Your task to perform on an android device: open app "Google Pay: Save, Pay, Manage" Image 0: 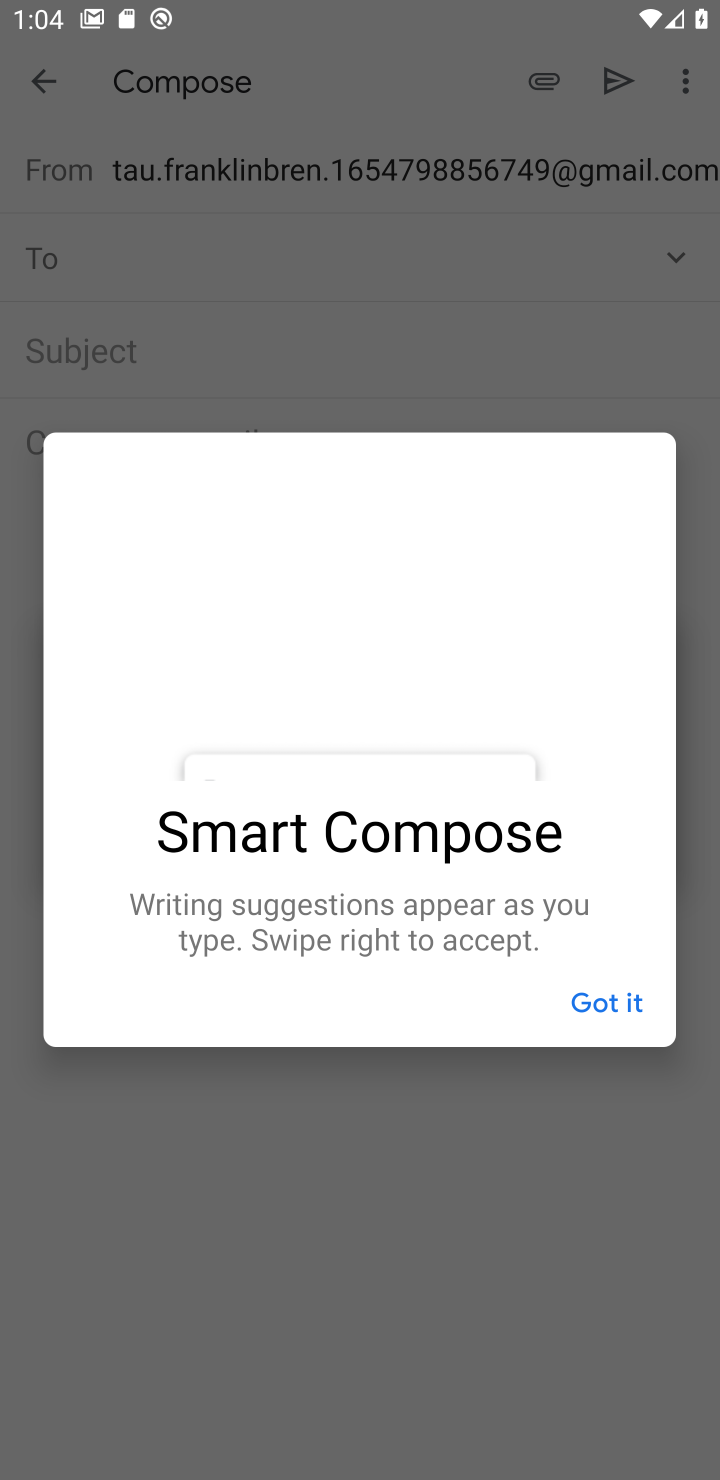
Step 0: press home button
Your task to perform on an android device: open app "Google Pay: Save, Pay, Manage" Image 1: 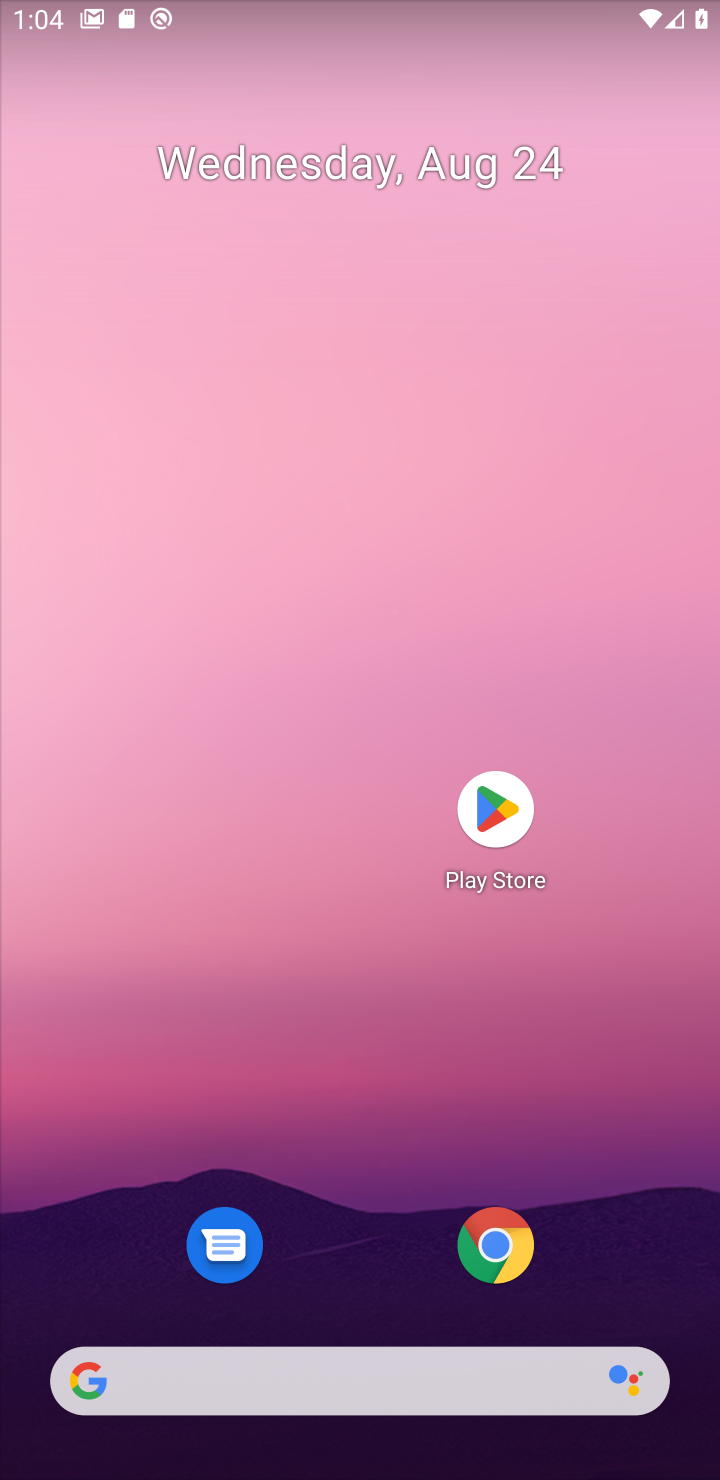
Step 1: click (489, 808)
Your task to perform on an android device: open app "Google Pay: Save, Pay, Manage" Image 2: 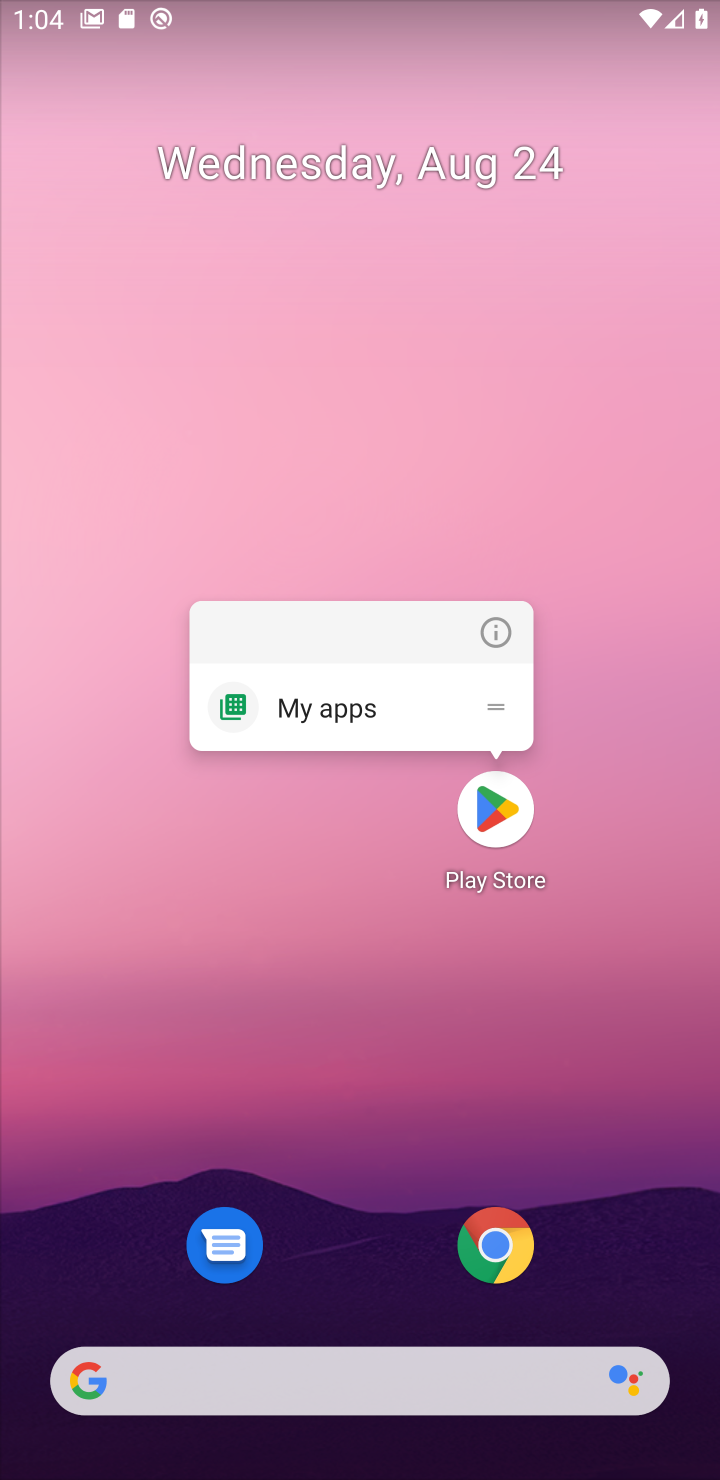
Step 2: click (489, 810)
Your task to perform on an android device: open app "Google Pay: Save, Pay, Manage" Image 3: 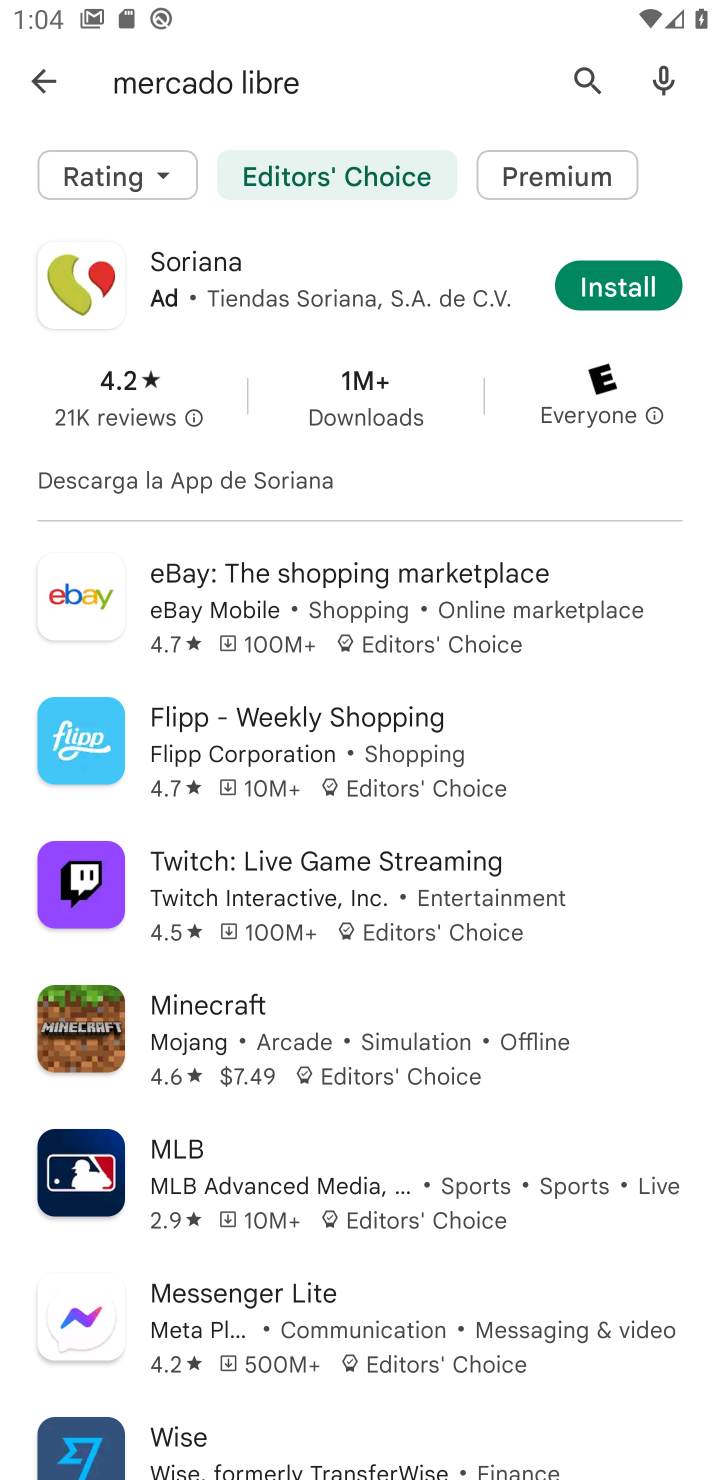
Step 3: click (585, 73)
Your task to perform on an android device: open app "Google Pay: Save, Pay, Manage" Image 4: 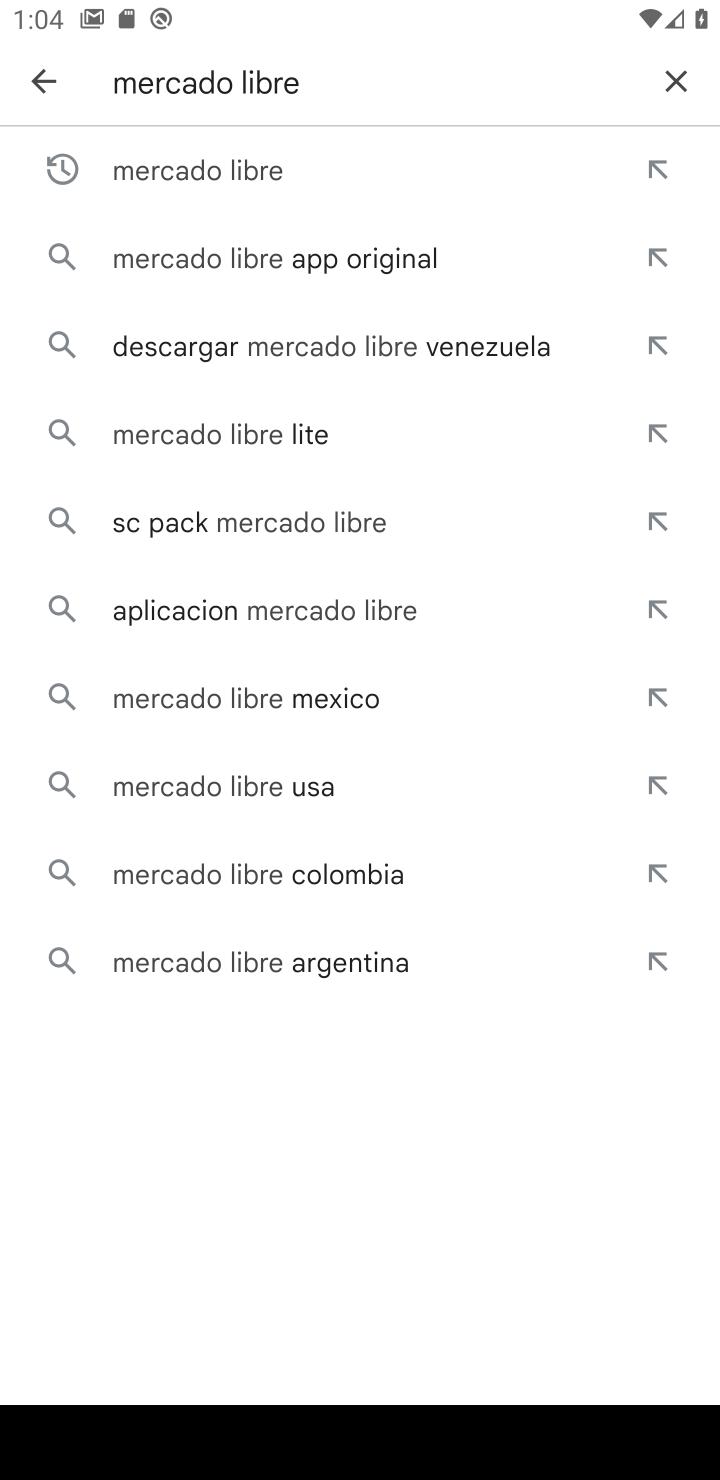
Step 4: click (663, 69)
Your task to perform on an android device: open app "Google Pay: Save, Pay, Manage" Image 5: 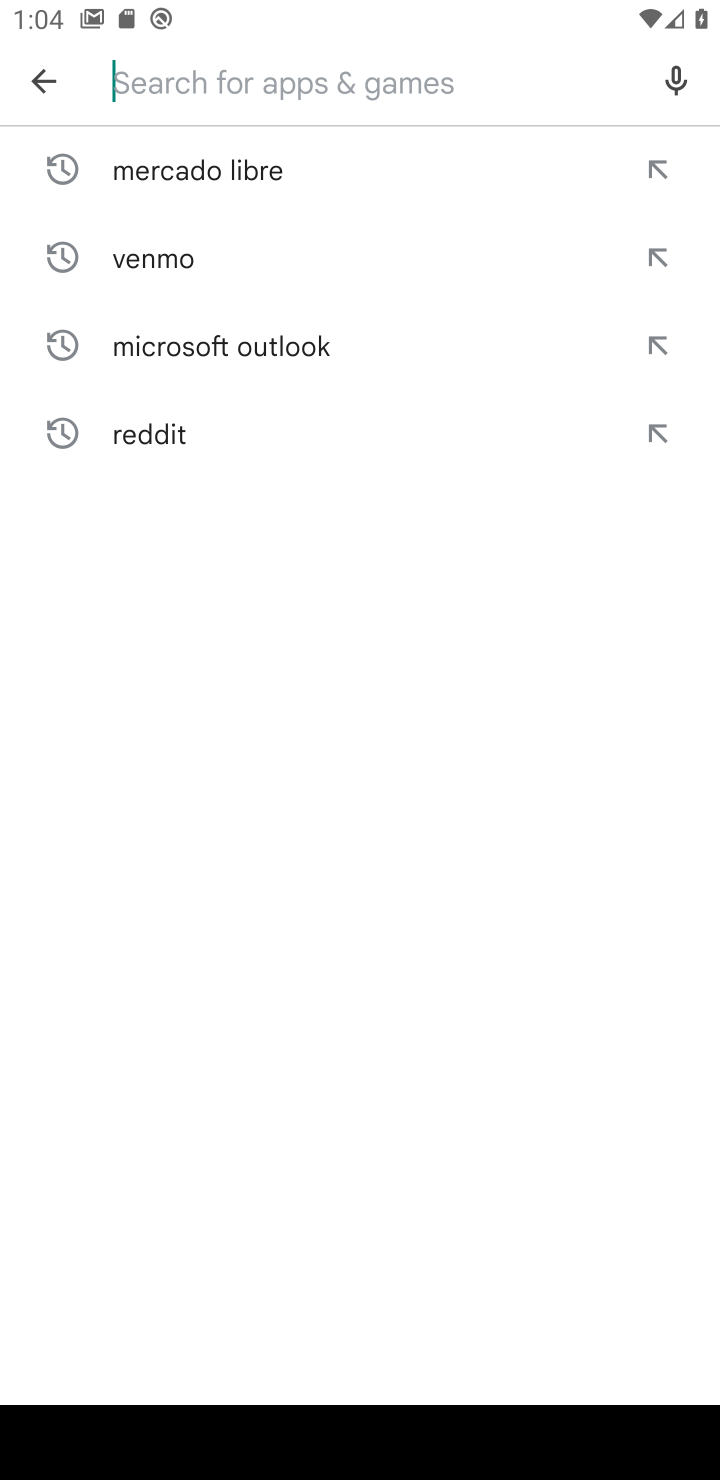
Step 5: type "Google Pay: Save, Pay, Manage"
Your task to perform on an android device: open app "Google Pay: Save, Pay, Manage" Image 6: 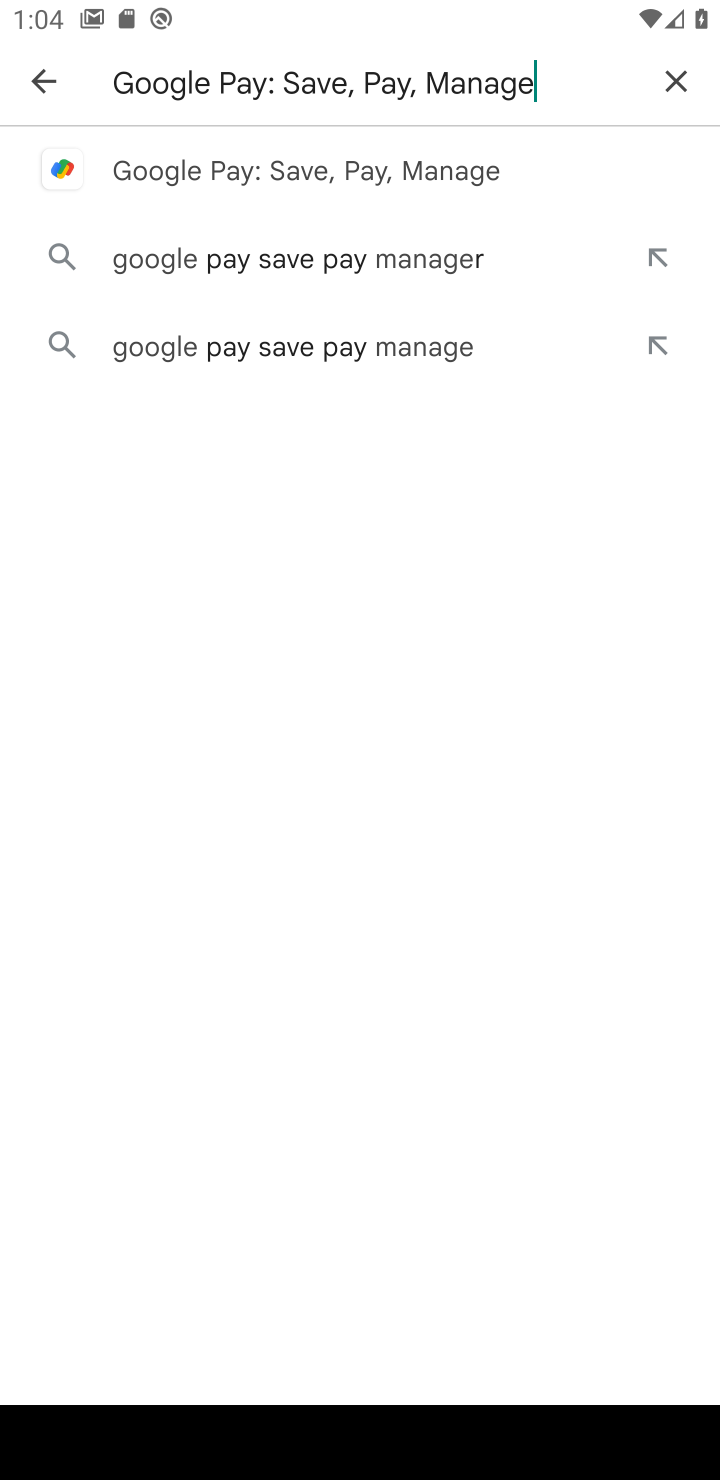
Step 6: click (344, 177)
Your task to perform on an android device: open app "Google Pay: Save, Pay, Manage" Image 7: 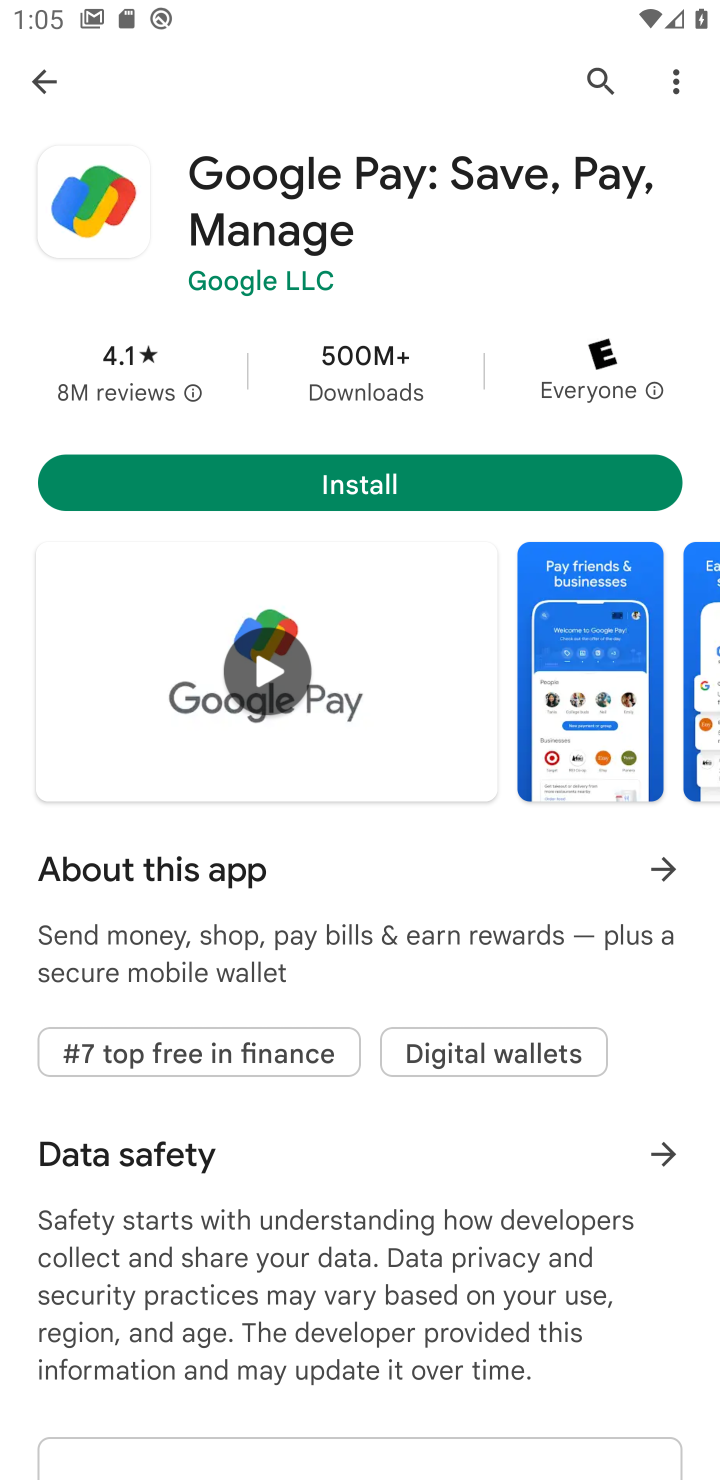
Step 7: task complete